Your task to perform on an android device: Open Google Chrome and open the bookmarks view Image 0: 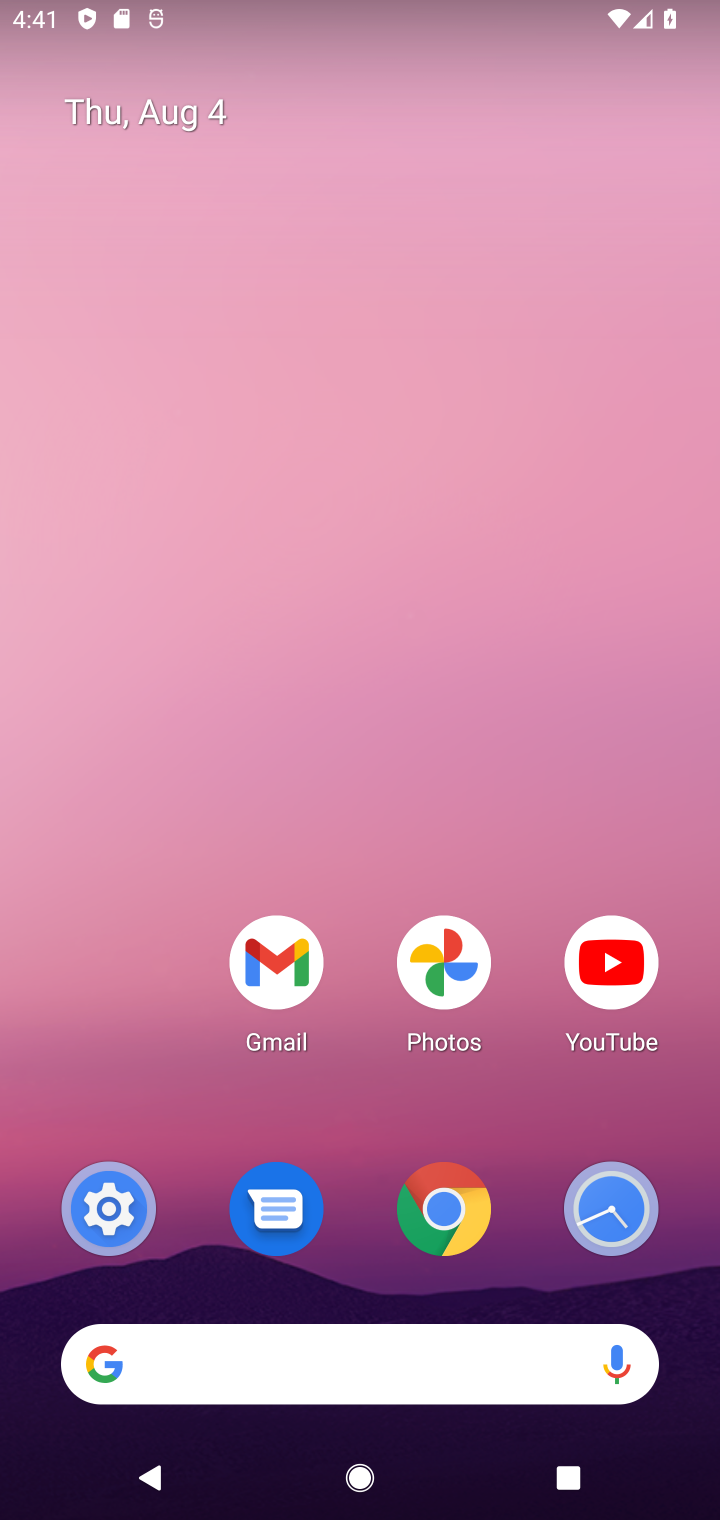
Step 0: click (445, 1223)
Your task to perform on an android device: Open Google Chrome and open the bookmarks view Image 1: 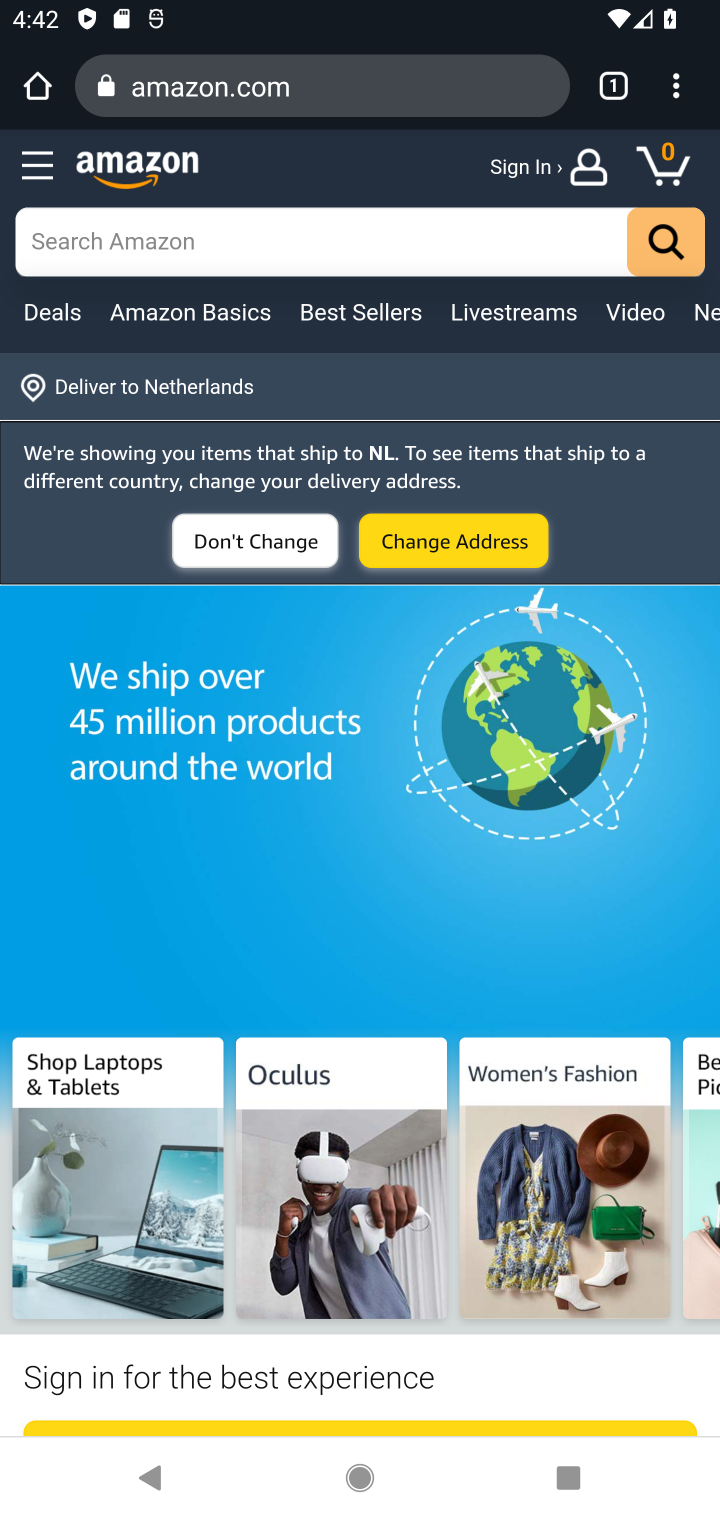
Step 1: click (670, 80)
Your task to perform on an android device: Open Google Chrome and open the bookmarks view Image 2: 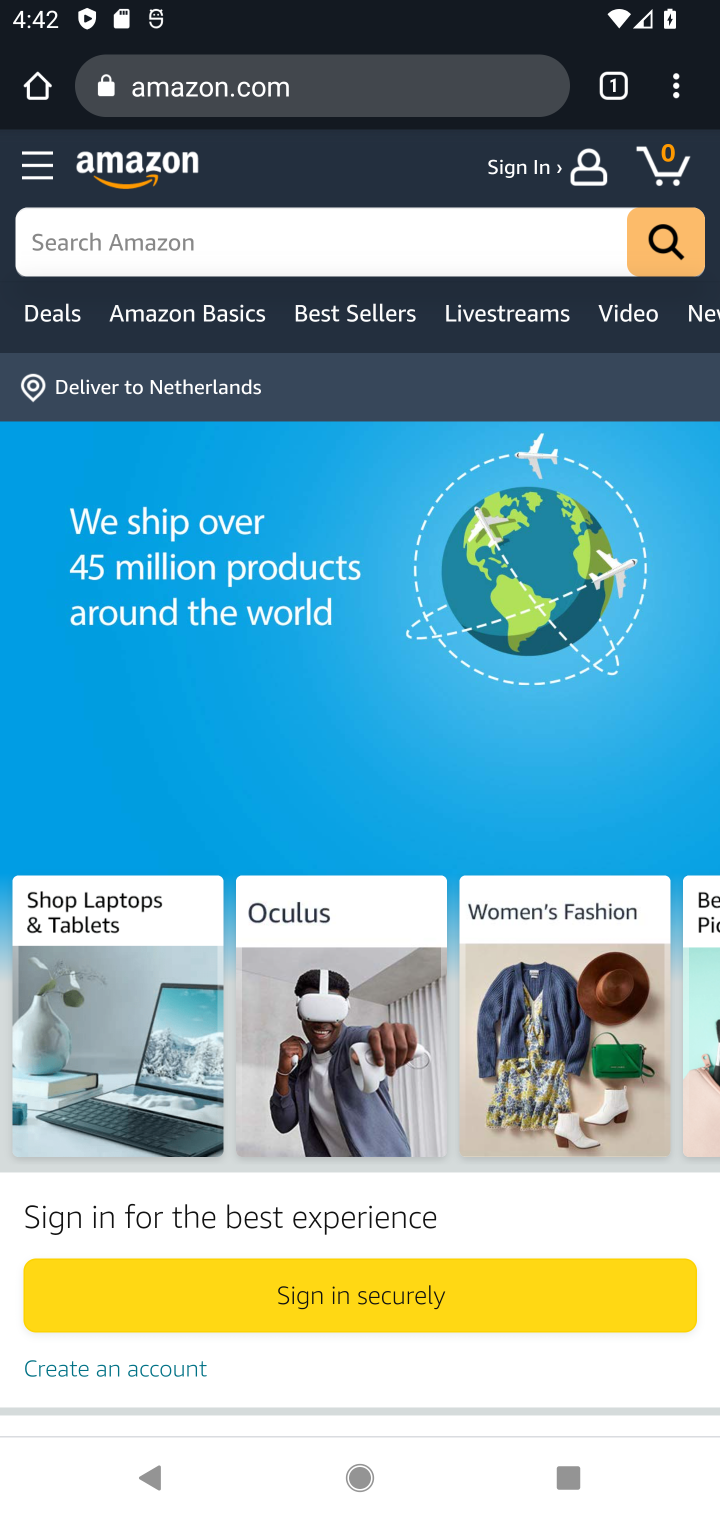
Step 2: click (681, 99)
Your task to perform on an android device: Open Google Chrome and open the bookmarks view Image 3: 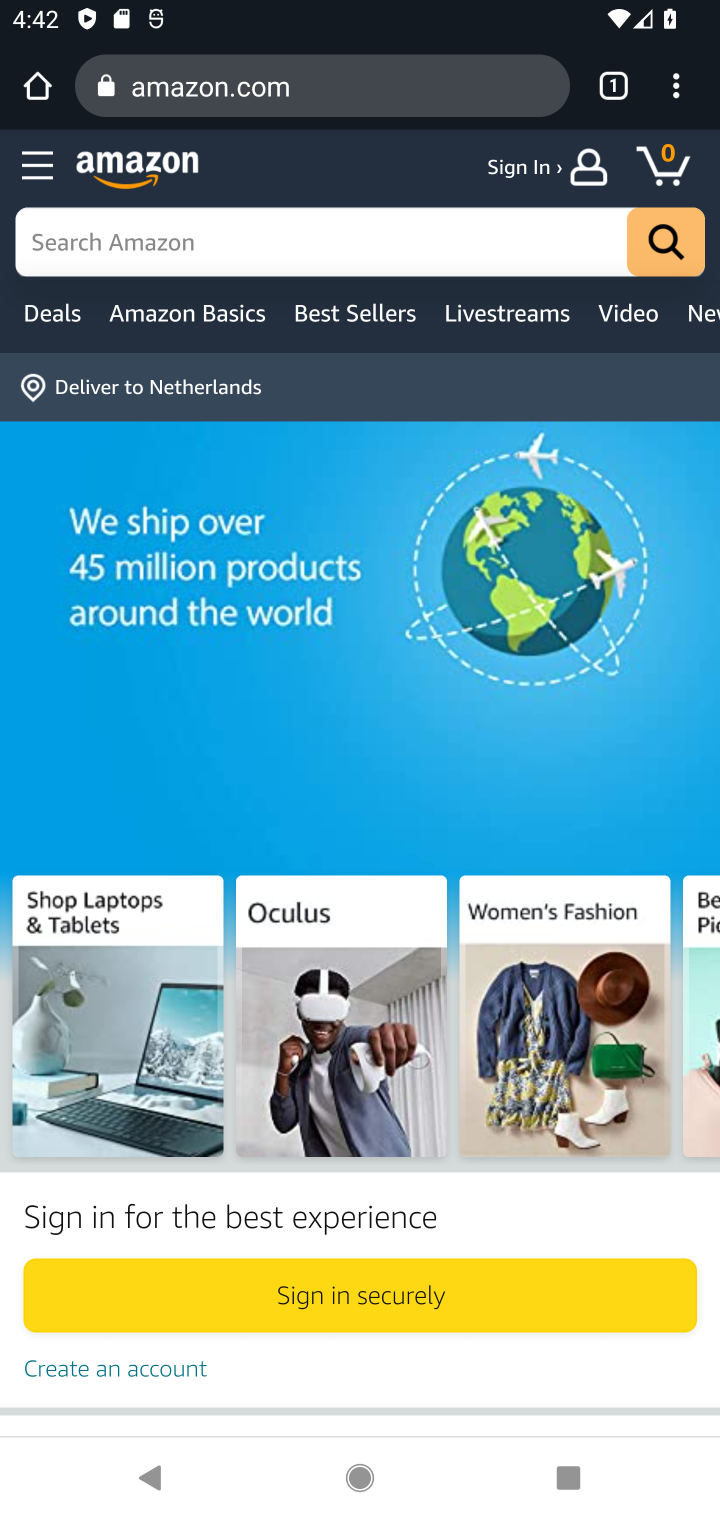
Step 3: click (681, 99)
Your task to perform on an android device: Open Google Chrome and open the bookmarks view Image 4: 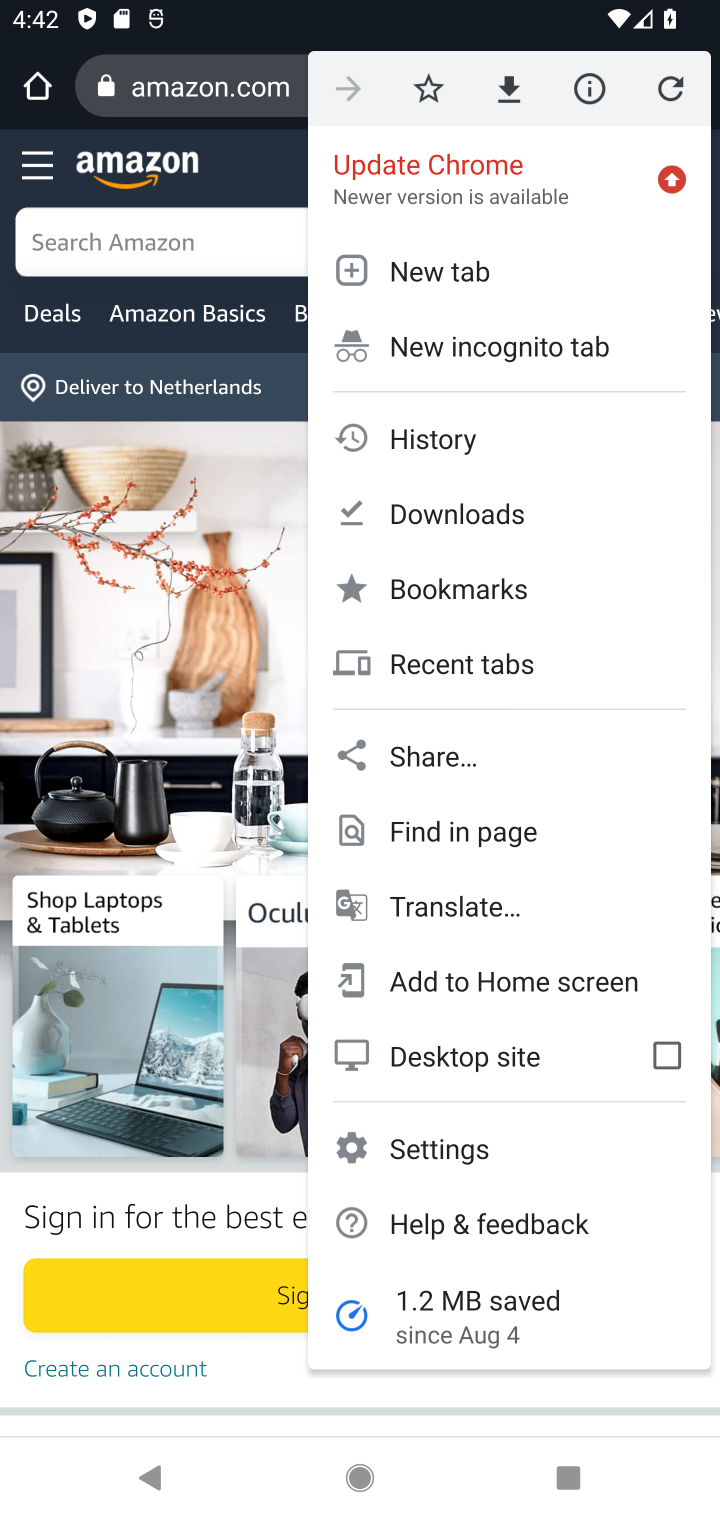
Step 4: click (427, 584)
Your task to perform on an android device: Open Google Chrome and open the bookmarks view Image 5: 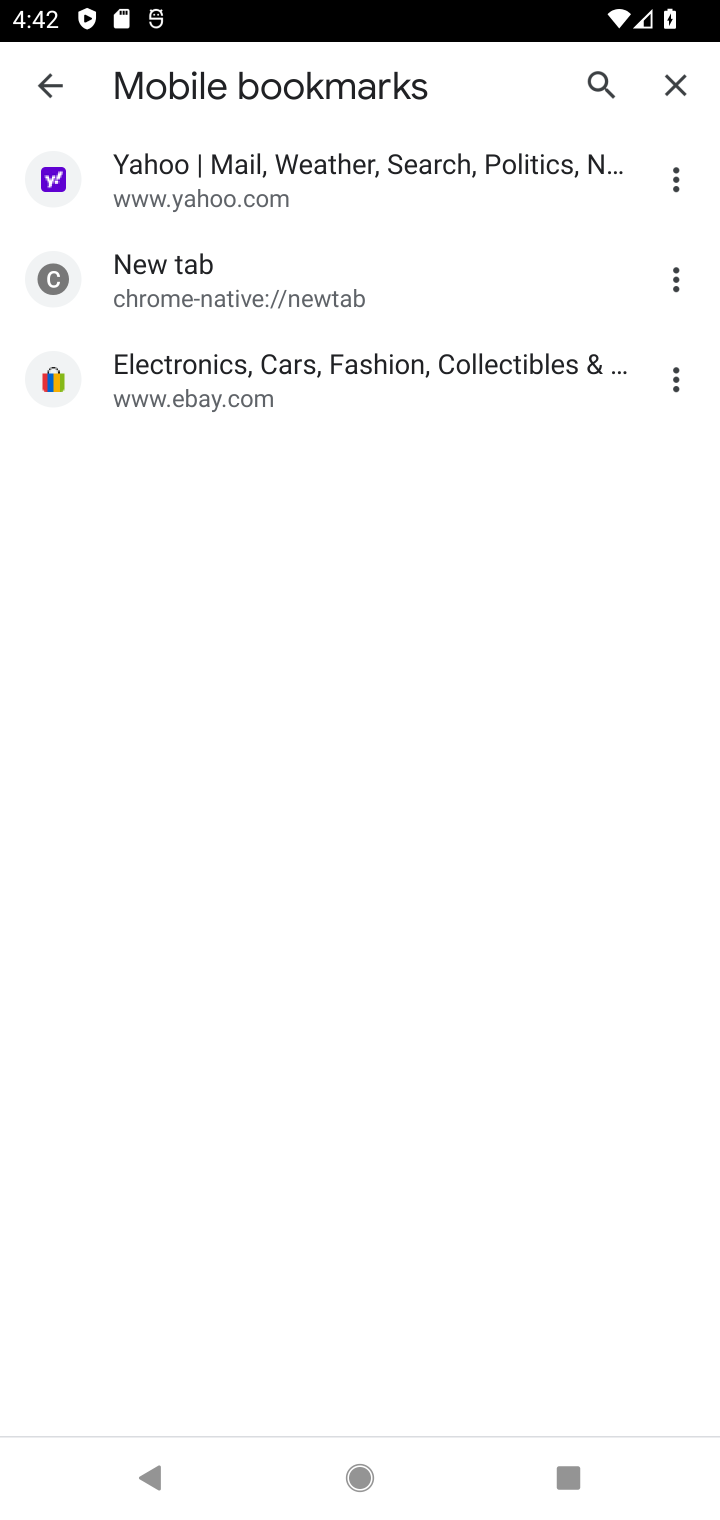
Step 5: task complete